Your task to perform on an android device: Clear the shopping cart on newegg.com. Image 0: 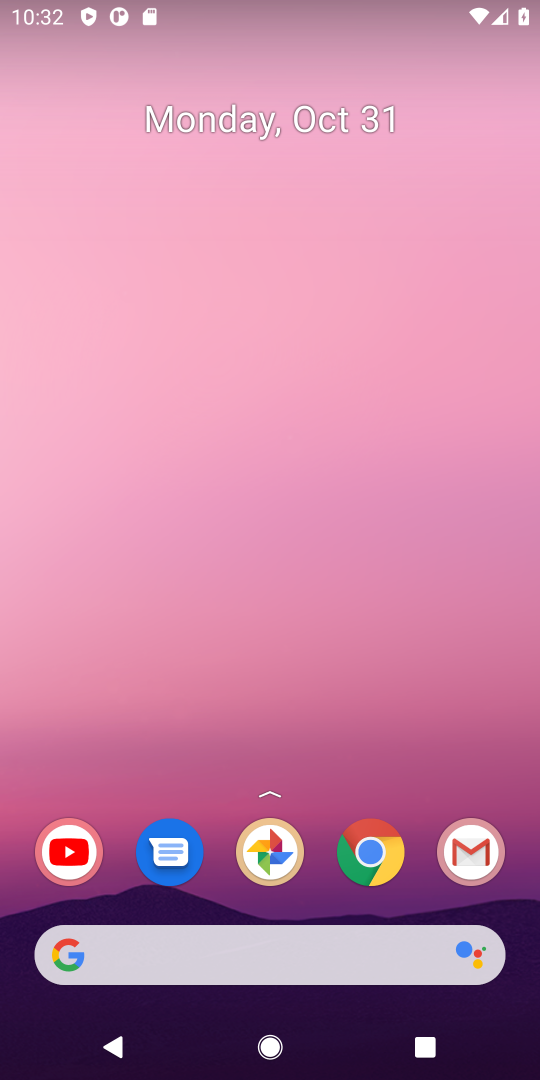
Step 0: drag from (67, 891) to (237, 167)
Your task to perform on an android device: Clear the shopping cart on newegg.com. Image 1: 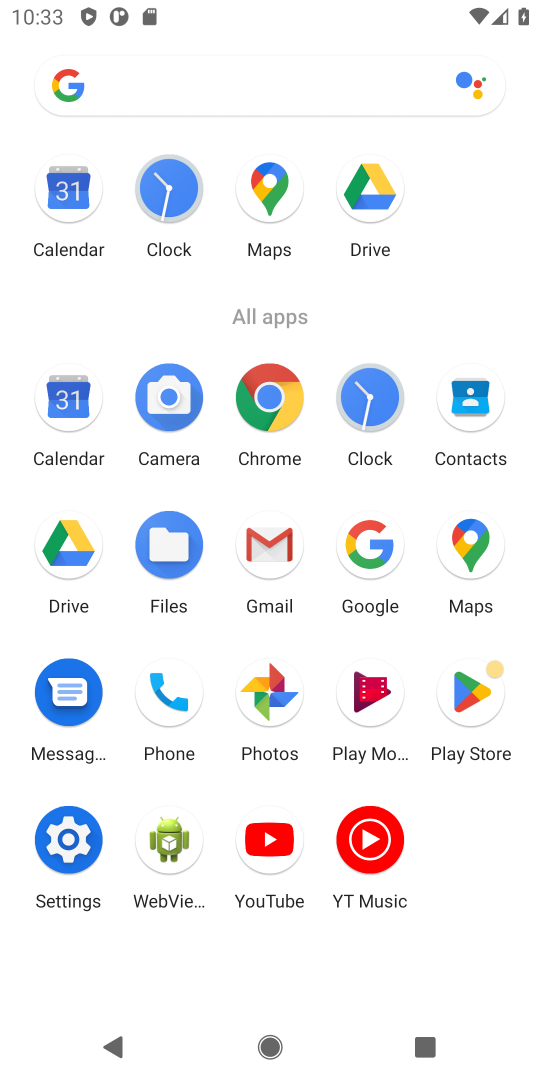
Step 1: click (285, 388)
Your task to perform on an android device: Clear the shopping cart on newegg.com. Image 2: 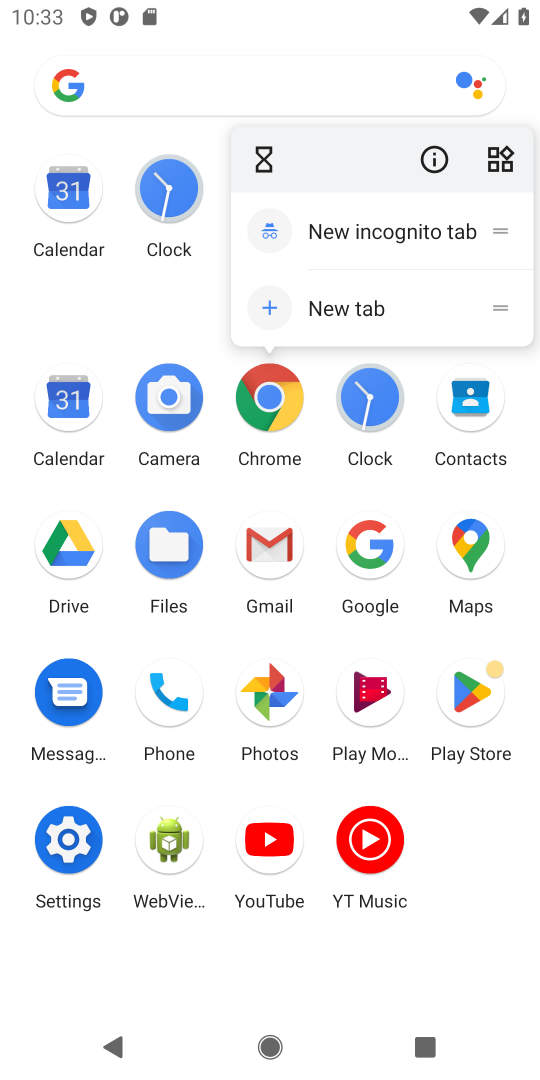
Step 2: click (280, 395)
Your task to perform on an android device: Clear the shopping cart on newegg.com. Image 3: 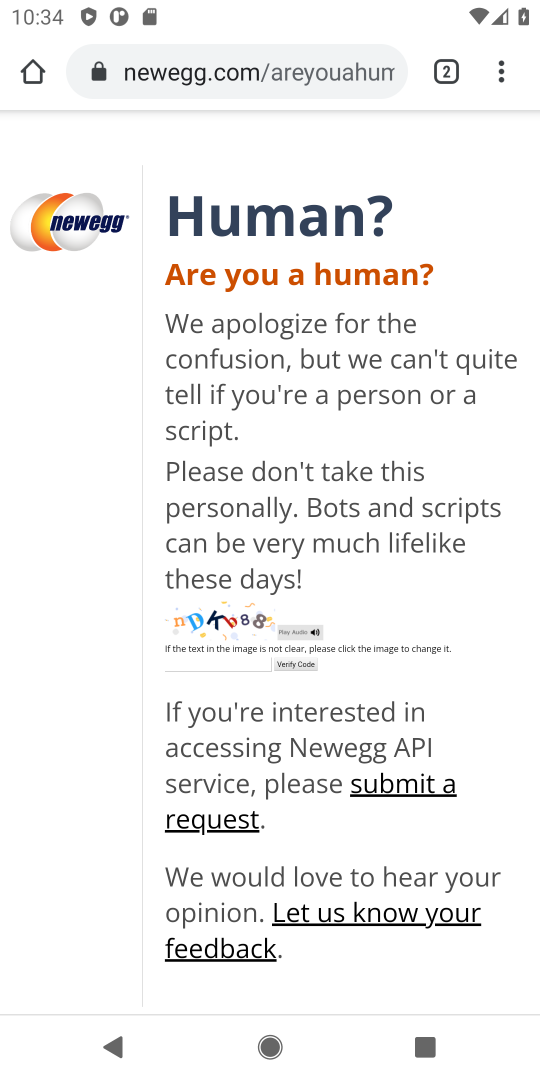
Step 3: click (299, 72)
Your task to perform on an android device: Clear the shopping cart on newegg.com. Image 4: 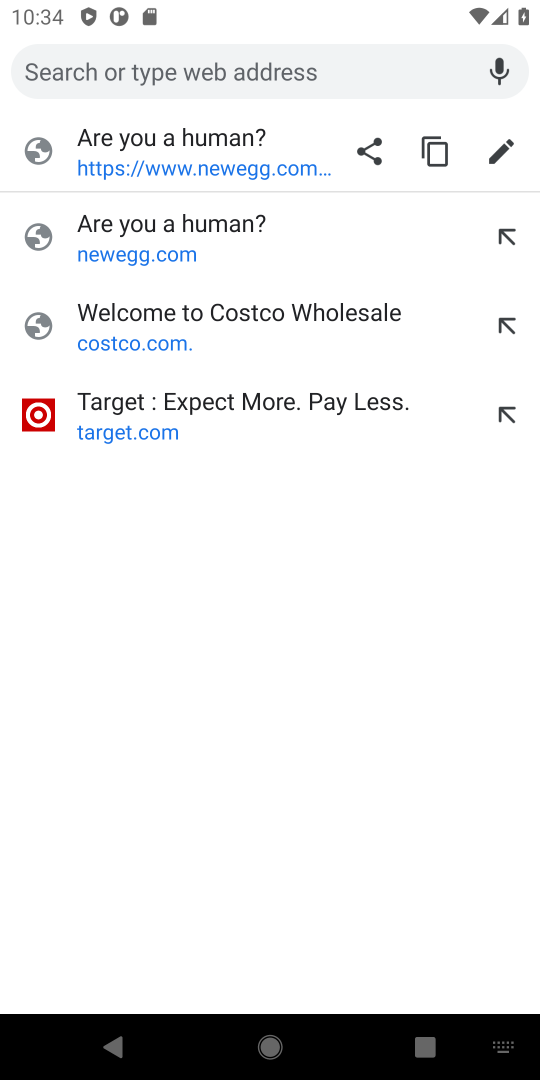
Step 4: click (299, 69)
Your task to perform on an android device: Clear the shopping cart on newegg.com. Image 5: 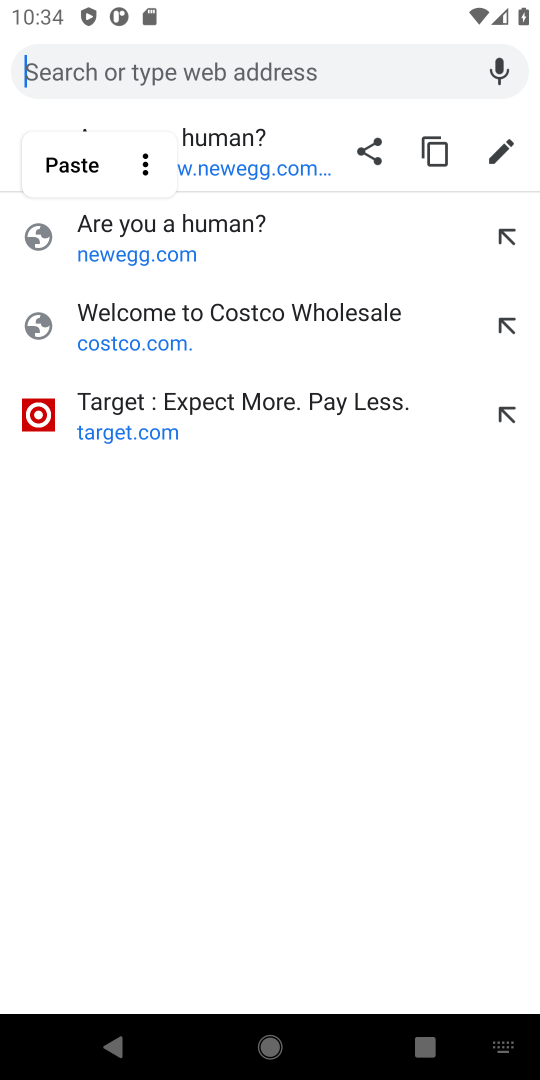
Step 5: type " newegg.com."
Your task to perform on an android device: Clear the shopping cart on newegg.com. Image 6: 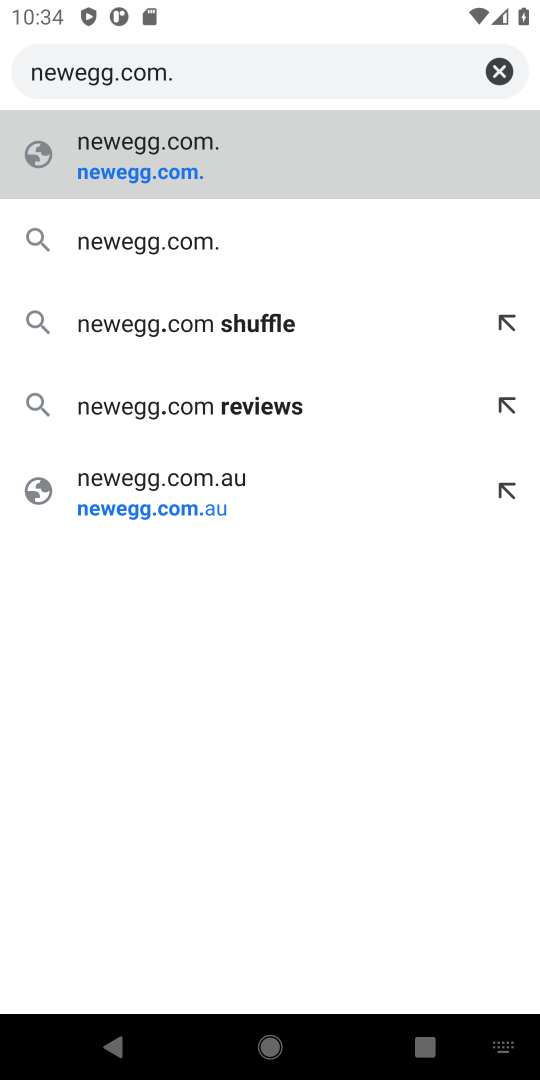
Step 6: press enter
Your task to perform on an android device: Clear the shopping cart on newegg.com. Image 7: 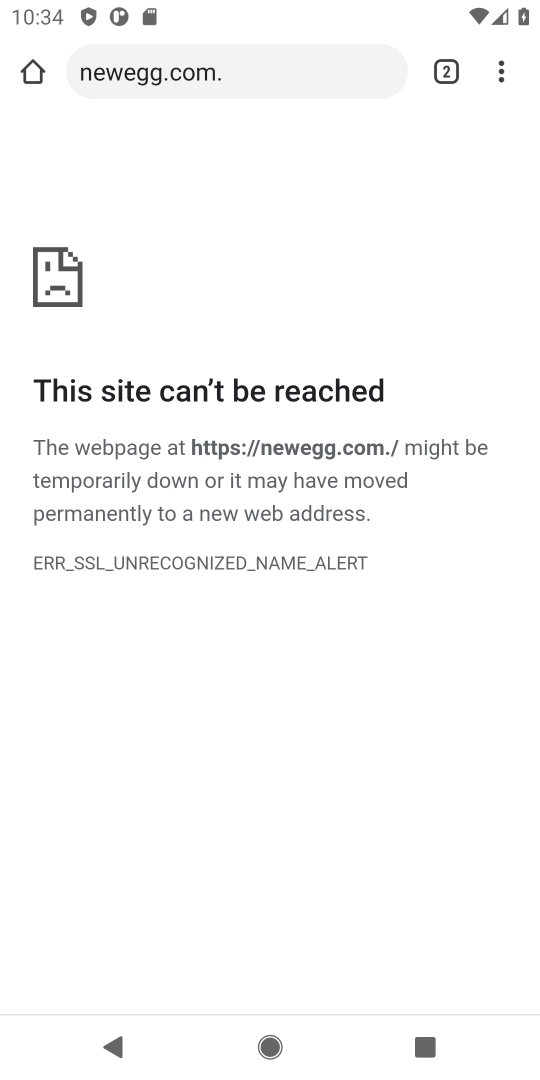
Step 7: press enter
Your task to perform on an android device: Clear the shopping cart on newegg.com. Image 8: 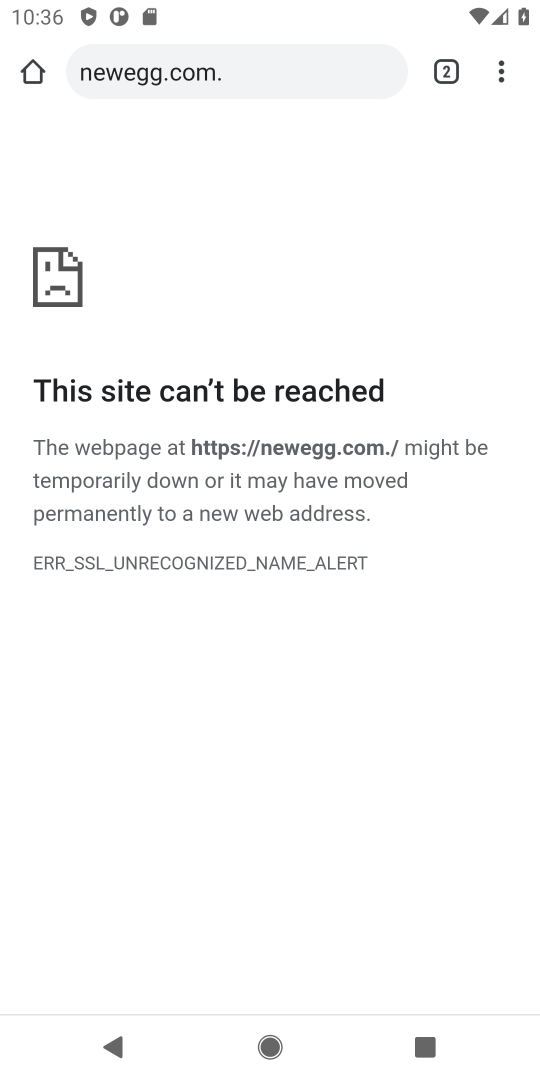
Step 8: task complete